Your task to perform on an android device: Open Youtube and go to the subscriptions tab Image 0: 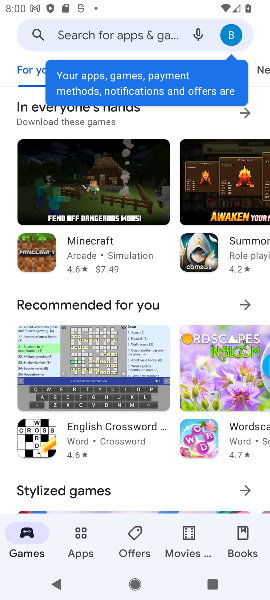
Step 0: press home button
Your task to perform on an android device: Open Youtube and go to the subscriptions tab Image 1: 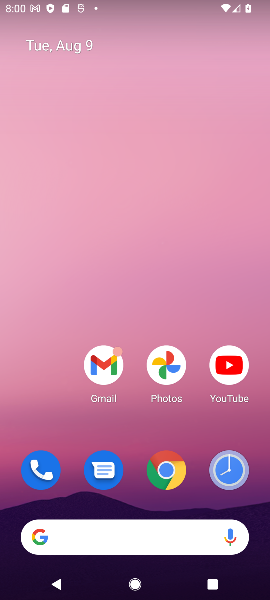
Step 1: drag from (131, 421) to (116, 3)
Your task to perform on an android device: Open Youtube and go to the subscriptions tab Image 2: 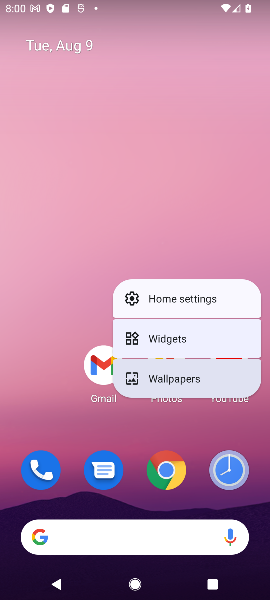
Step 2: click (24, 371)
Your task to perform on an android device: Open Youtube and go to the subscriptions tab Image 3: 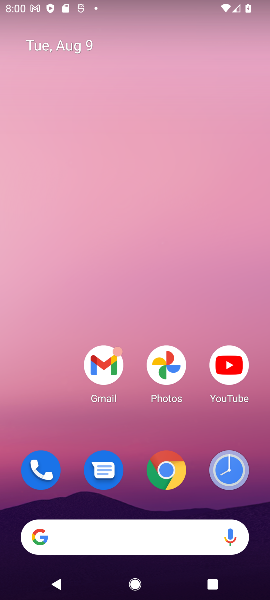
Step 3: drag from (115, 514) to (131, 83)
Your task to perform on an android device: Open Youtube and go to the subscriptions tab Image 4: 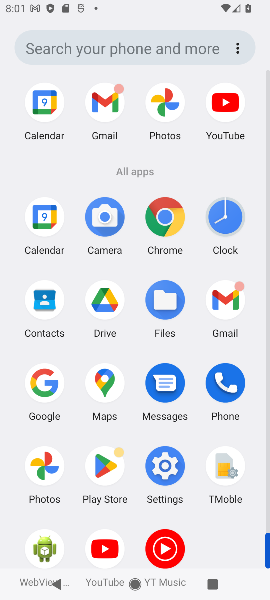
Step 4: click (104, 534)
Your task to perform on an android device: Open Youtube and go to the subscriptions tab Image 5: 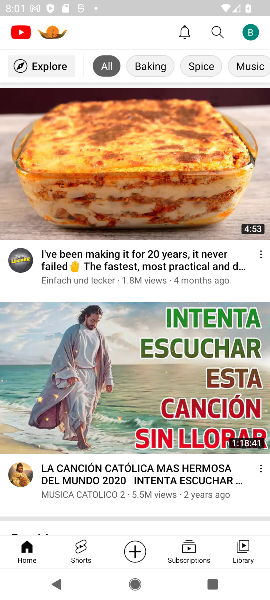
Step 5: click (198, 546)
Your task to perform on an android device: Open Youtube and go to the subscriptions tab Image 6: 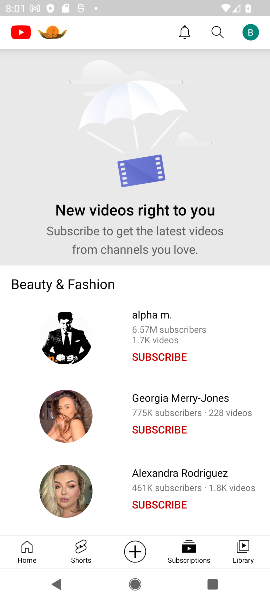
Step 6: task complete